Your task to perform on an android device: Go to location settings Image 0: 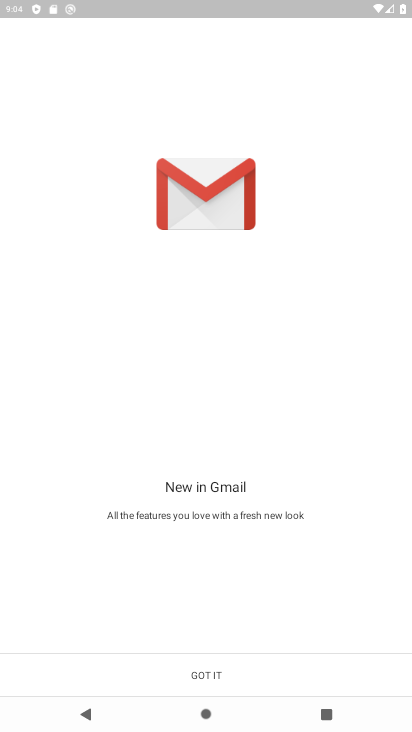
Step 0: press home button
Your task to perform on an android device: Go to location settings Image 1: 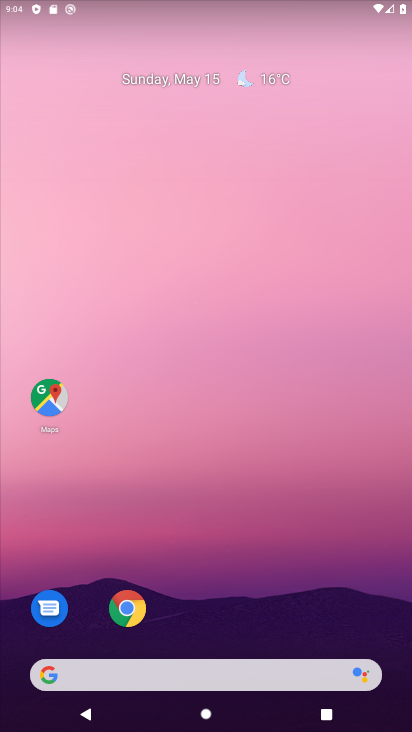
Step 1: drag from (215, 597) to (237, 0)
Your task to perform on an android device: Go to location settings Image 2: 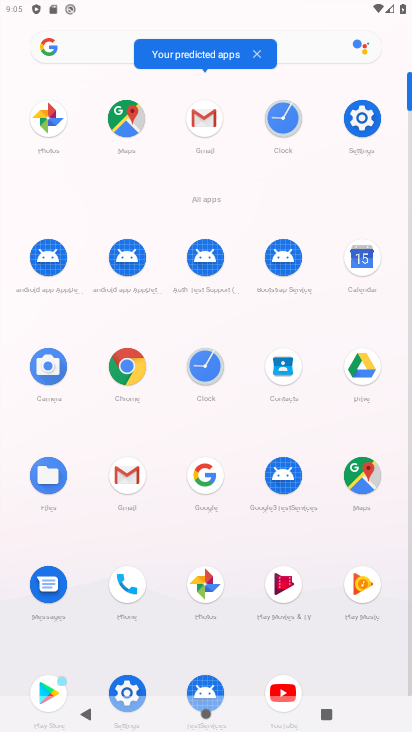
Step 2: click (360, 110)
Your task to perform on an android device: Go to location settings Image 3: 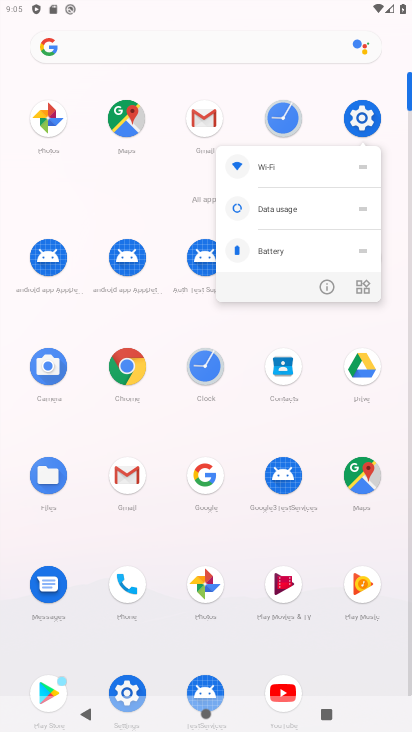
Step 3: click (373, 118)
Your task to perform on an android device: Go to location settings Image 4: 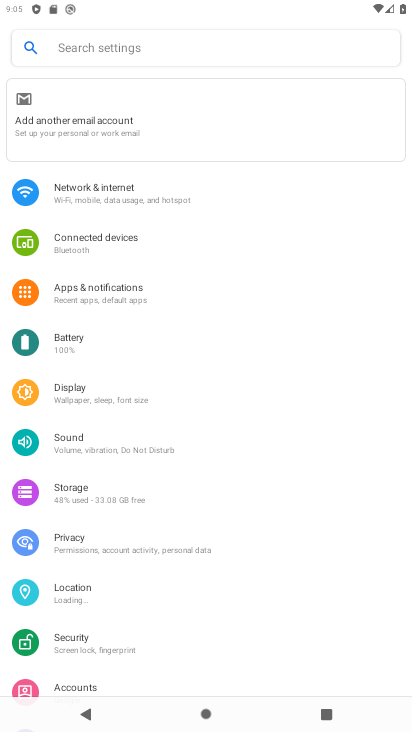
Step 4: click (78, 595)
Your task to perform on an android device: Go to location settings Image 5: 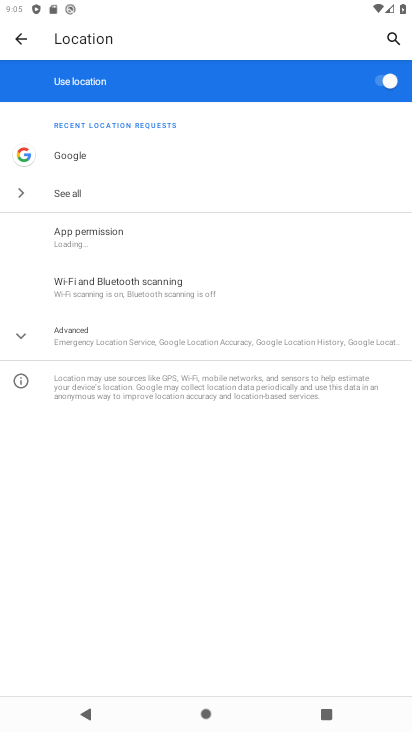
Step 5: click (119, 333)
Your task to perform on an android device: Go to location settings Image 6: 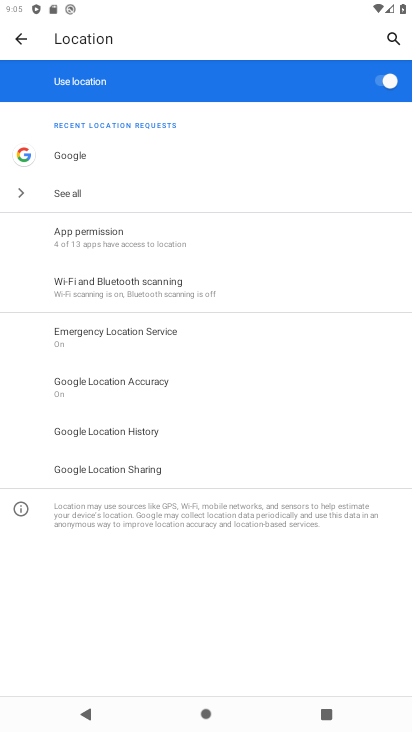
Step 6: task complete